Your task to perform on an android device: Go to Google maps Image 0: 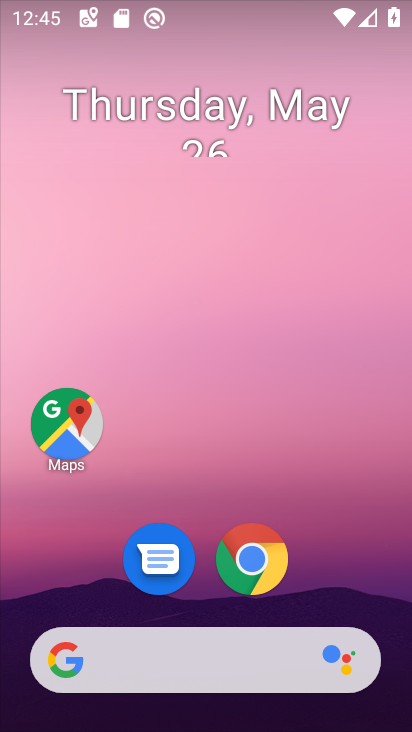
Step 0: press home button
Your task to perform on an android device: Go to Google maps Image 1: 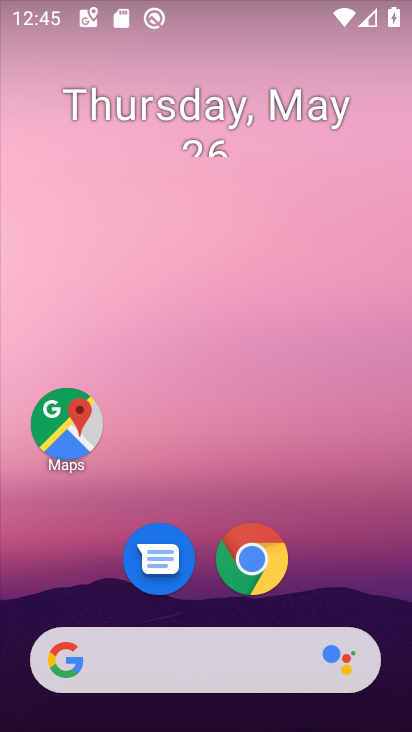
Step 1: click (72, 443)
Your task to perform on an android device: Go to Google maps Image 2: 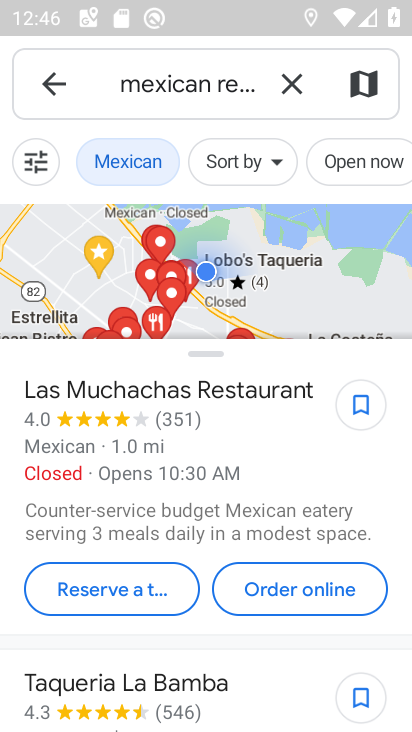
Step 2: click (292, 87)
Your task to perform on an android device: Go to Google maps Image 3: 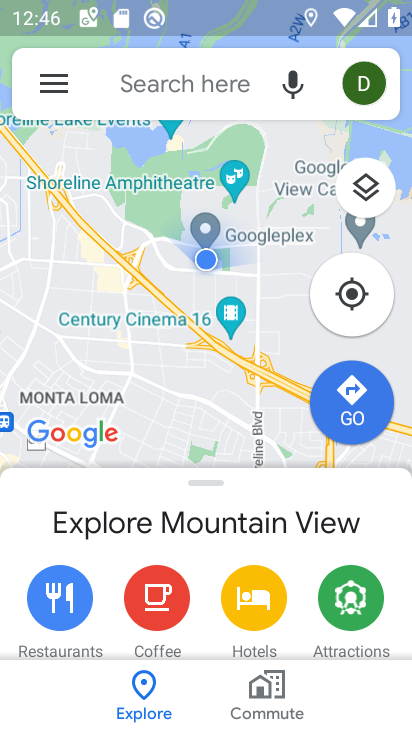
Step 3: task complete